Your task to perform on an android device: Go to network settings Image 0: 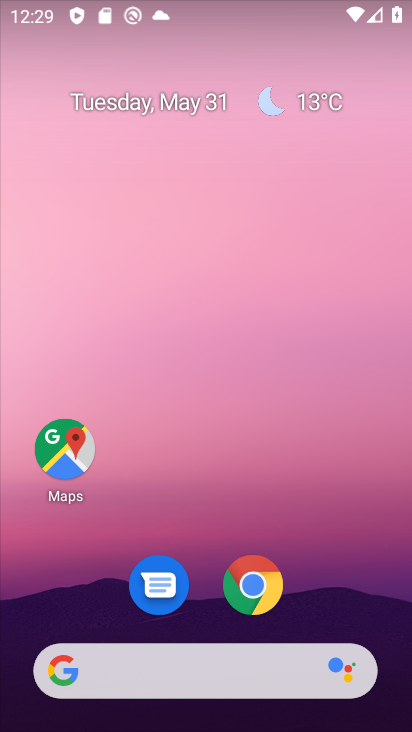
Step 0: drag from (309, 544) to (319, 77)
Your task to perform on an android device: Go to network settings Image 1: 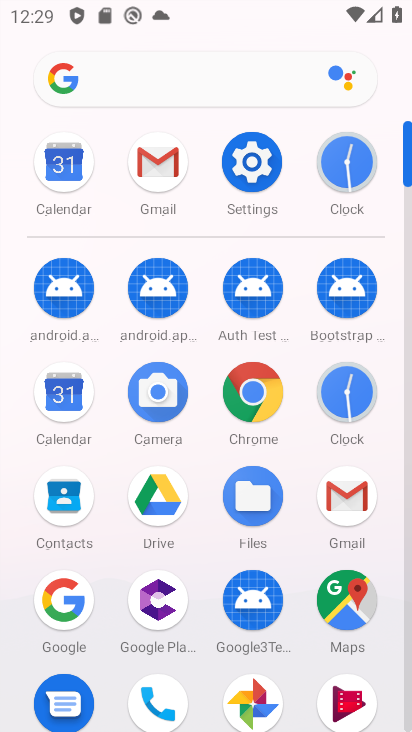
Step 1: click (266, 158)
Your task to perform on an android device: Go to network settings Image 2: 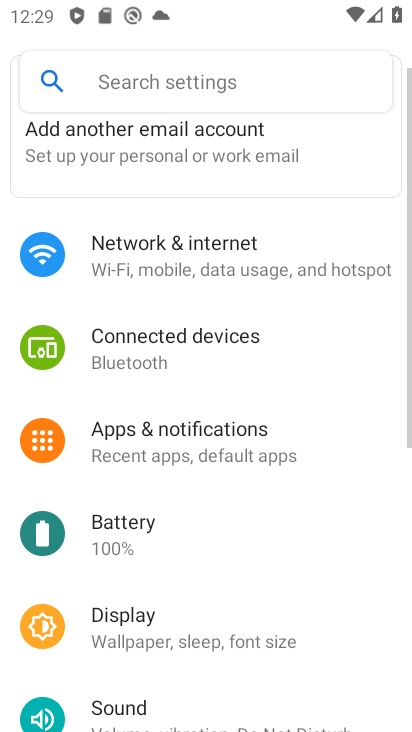
Step 2: drag from (262, 253) to (243, 539)
Your task to perform on an android device: Go to network settings Image 3: 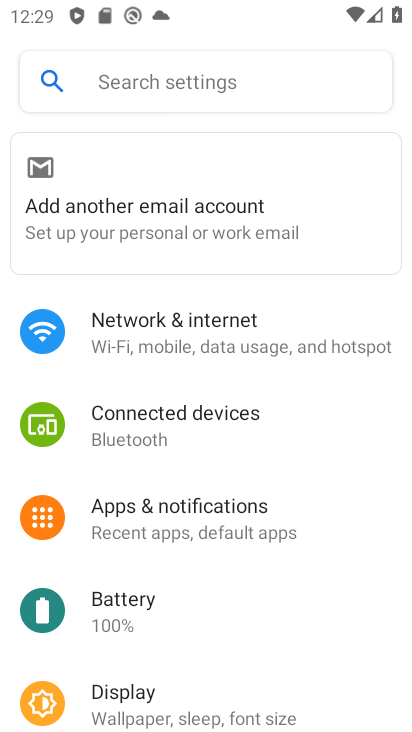
Step 3: click (303, 327)
Your task to perform on an android device: Go to network settings Image 4: 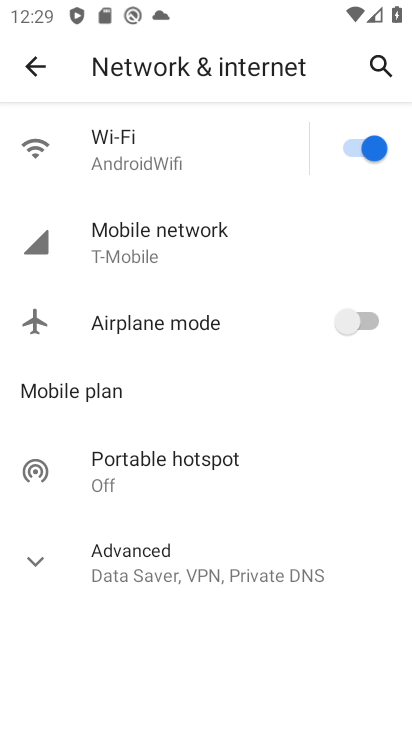
Step 4: task complete